Your task to perform on an android device: add a contact Image 0: 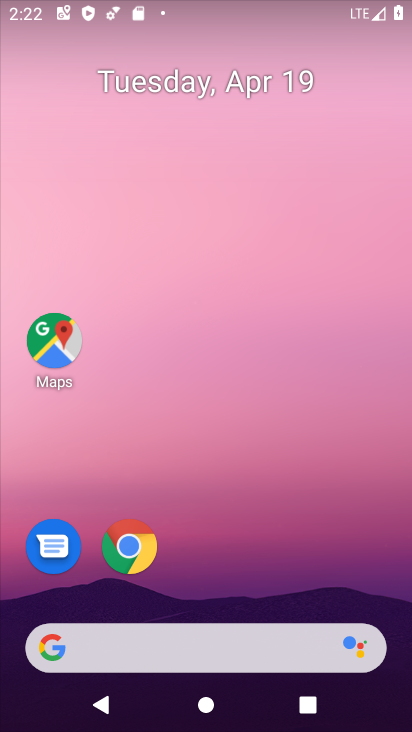
Step 0: drag from (196, 630) to (79, 8)
Your task to perform on an android device: add a contact Image 1: 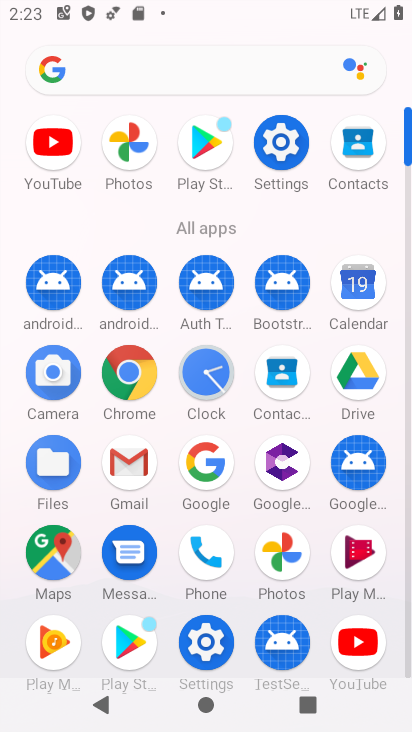
Step 1: click (275, 399)
Your task to perform on an android device: add a contact Image 2: 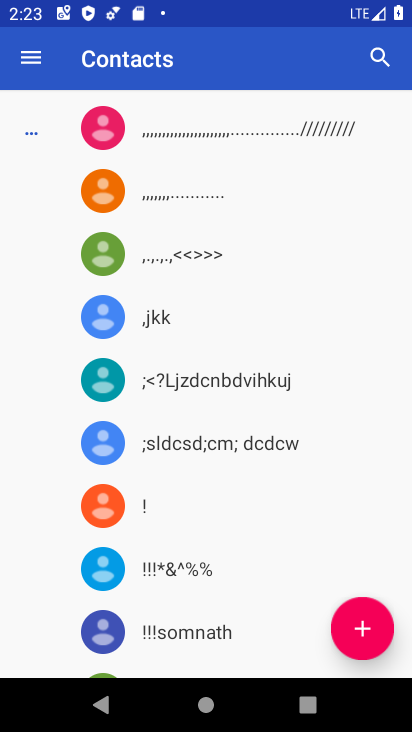
Step 2: click (364, 635)
Your task to perform on an android device: add a contact Image 3: 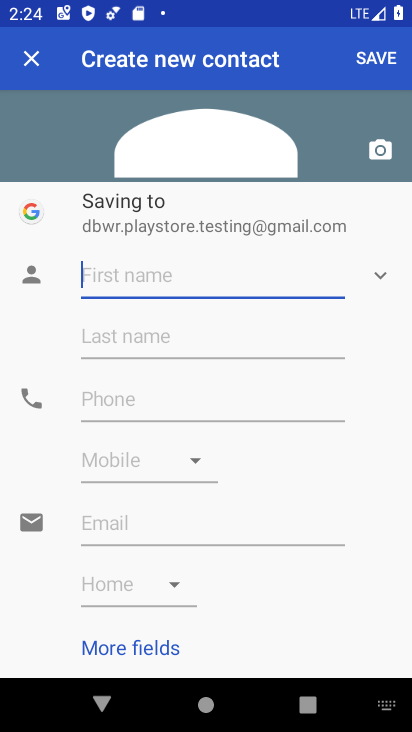
Step 3: type "chanadler "
Your task to perform on an android device: add a contact Image 4: 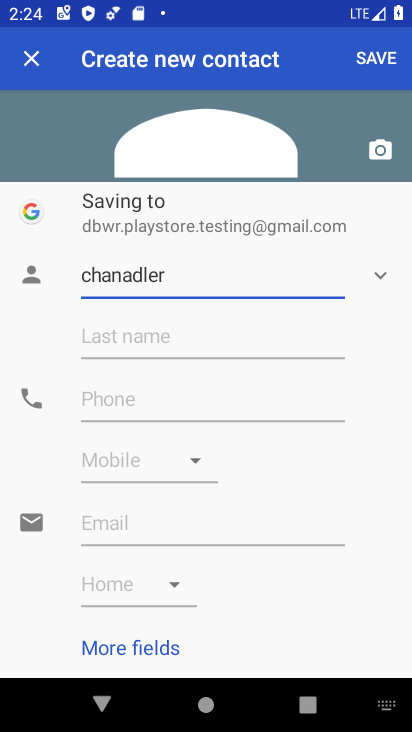
Step 4: click (260, 335)
Your task to perform on an android device: add a contact Image 5: 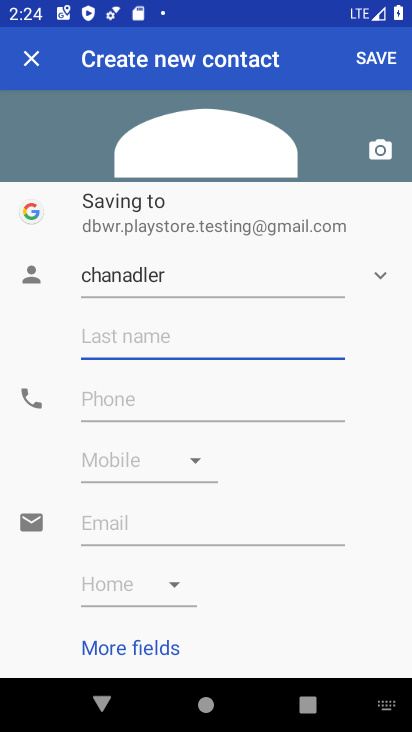
Step 5: type "bong"
Your task to perform on an android device: add a contact Image 6: 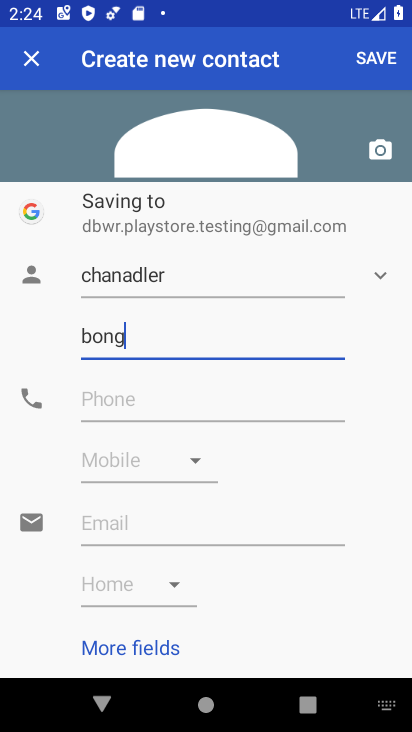
Step 6: click (196, 394)
Your task to perform on an android device: add a contact Image 7: 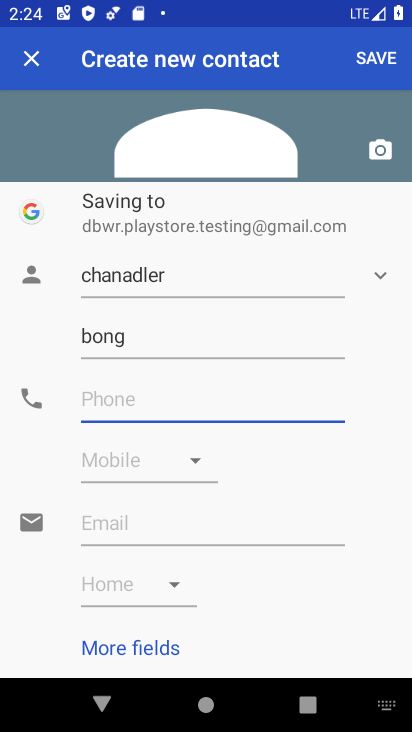
Step 7: type "857634347"
Your task to perform on an android device: add a contact Image 8: 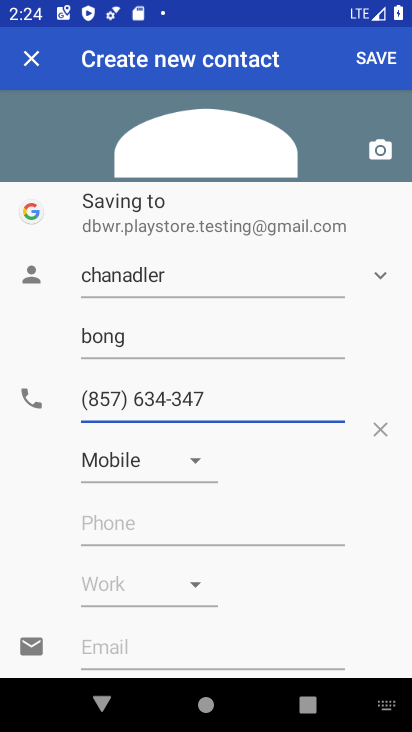
Step 8: click (367, 60)
Your task to perform on an android device: add a contact Image 9: 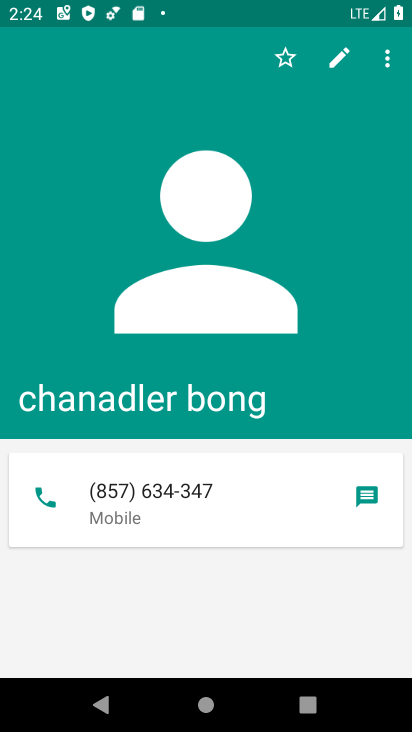
Step 9: task complete